Your task to perform on an android device: Open CNN.com Image 0: 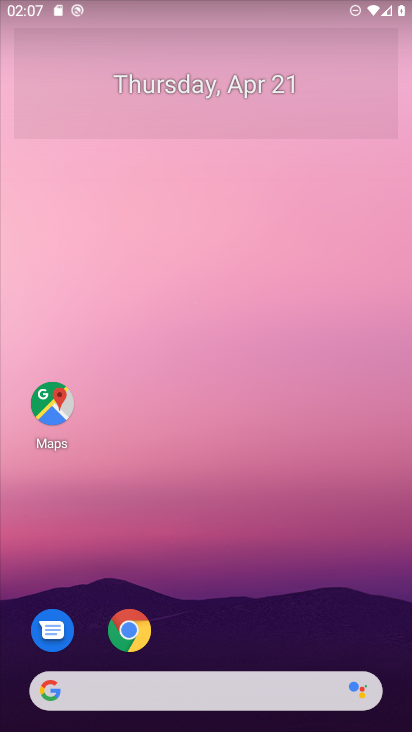
Step 0: click (134, 618)
Your task to perform on an android device: Open CNN.com Image 1: 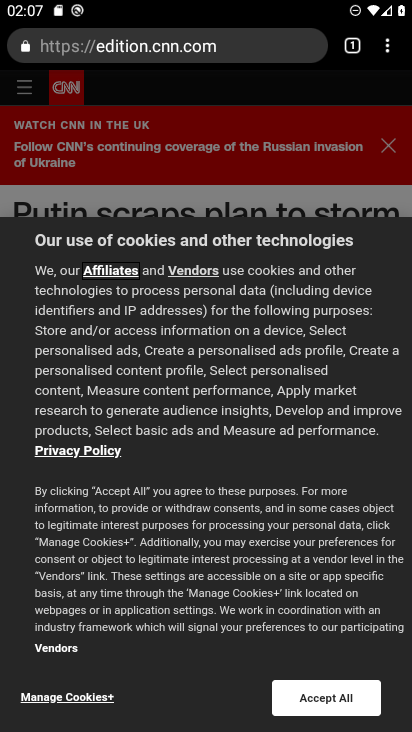
Step 1: task complete